Your task to perform on an android device: change keyboard looks Image 0: 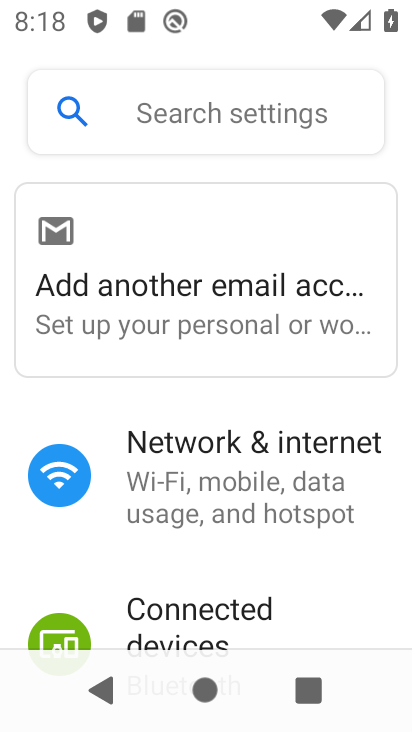
Step 0: drag from (371, 601) to (328, 142)
Your task to perform on an android device: change keyboard looks Image 1: 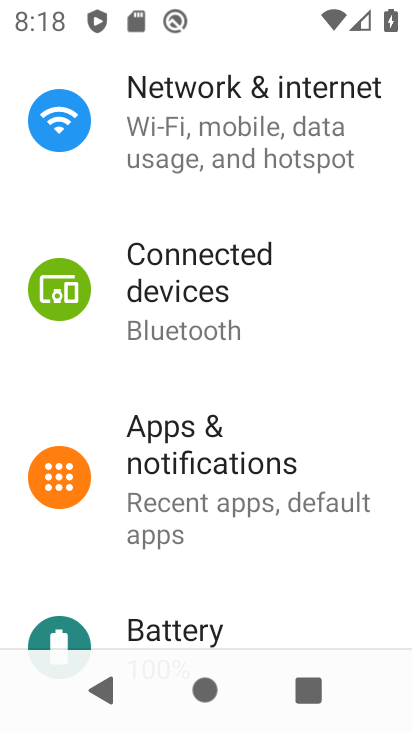
Step 1: drag from (375, 566) to (330, 158)
Your task to perform on an android device: change keyboard looks Image 2: 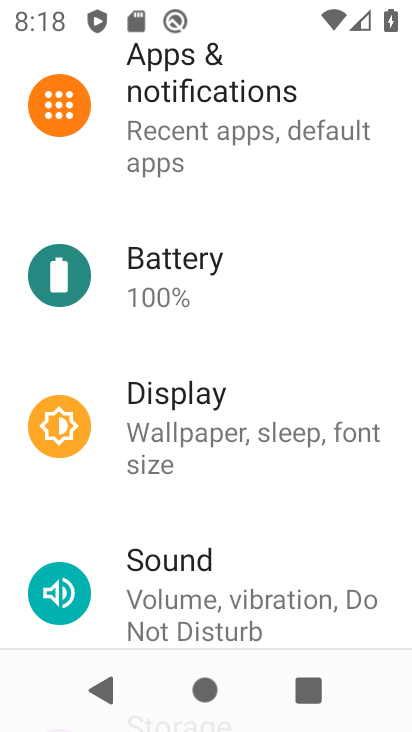
Step 2: drag from (374, 506) to (363, 109)
Your task to perform on an android device: change keyboard looks Image 3: 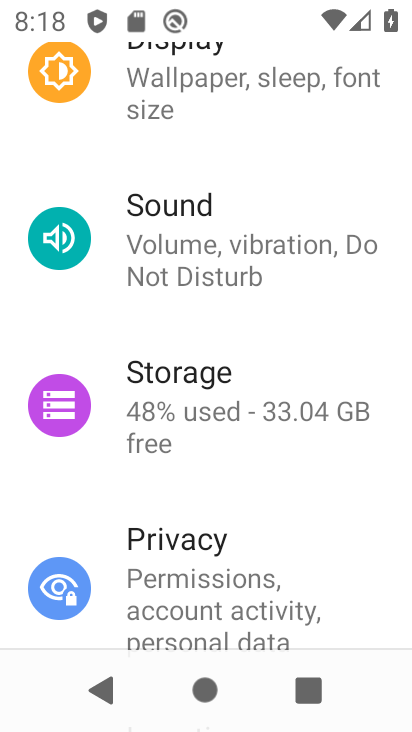
Step 3: drag from (344, 587) to (258, 160)
Your task to perform on an android device: change keyboard looks Image 4: 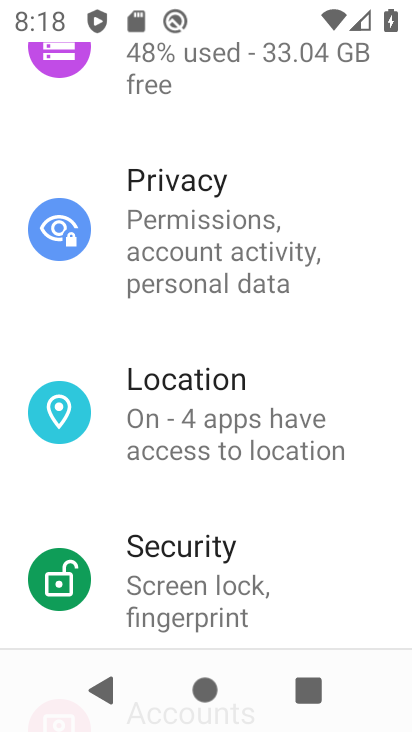
Step 4: drag from (335, 562) to (269, 117)
Your task to perform on an android device: change keyboard looks Image 5: 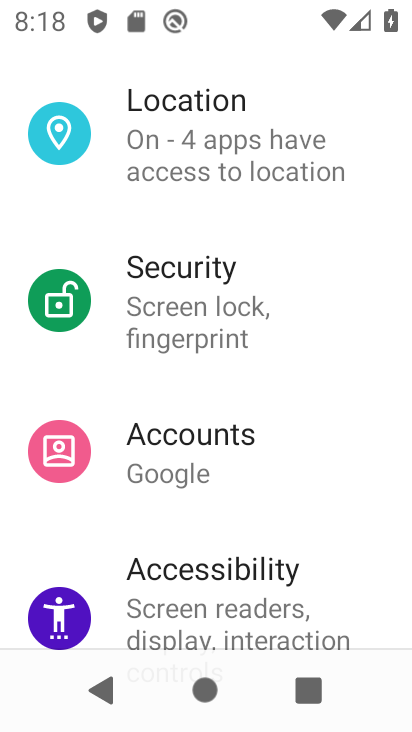
Step 5: drag from (361, 548) to (275, 108)
Your task to perform on an android device: change keyboard looks Image 6: 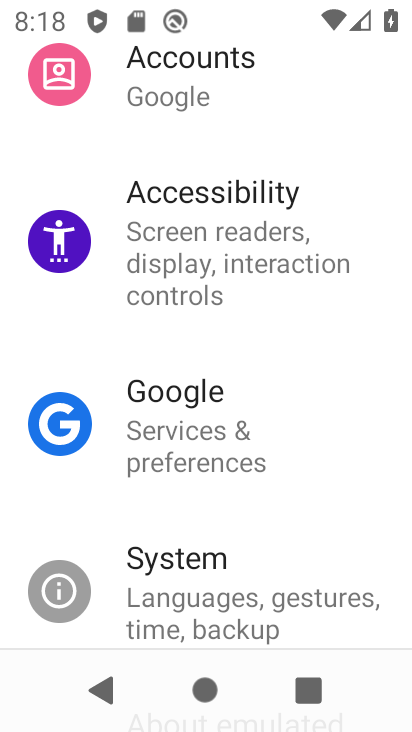
Step 6: drag from (273, 588) to (262, 248)
Your task to perform on an android device: change keyboard looks Image 7: 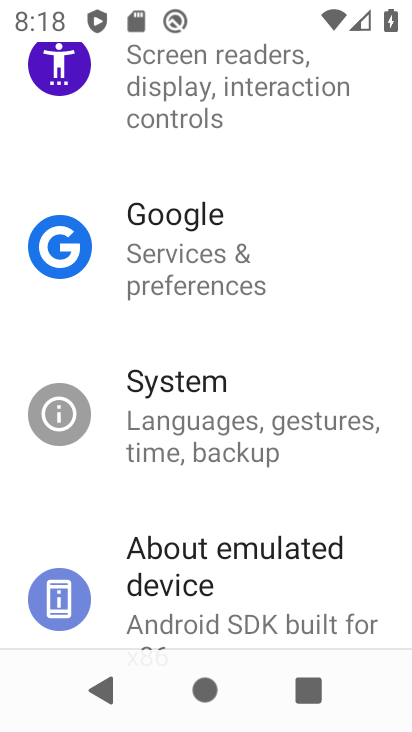
Step 7: click (258, 458)
Your task to perform on an android device: change keyboard looks Image 8: 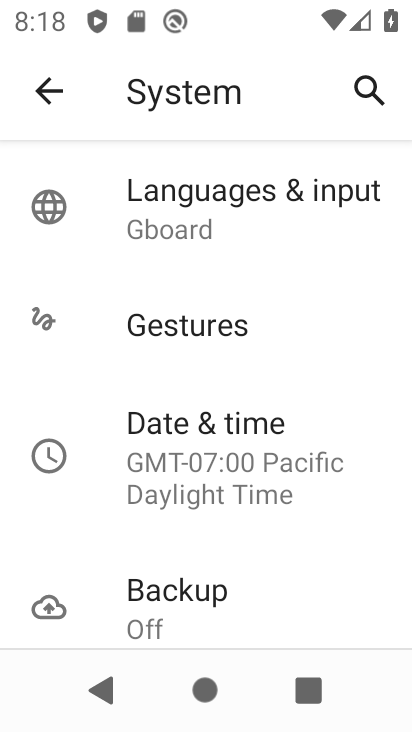
Step 8: click (245, 210)
Your task to perform on an android device: change keyboard looks Image 9: 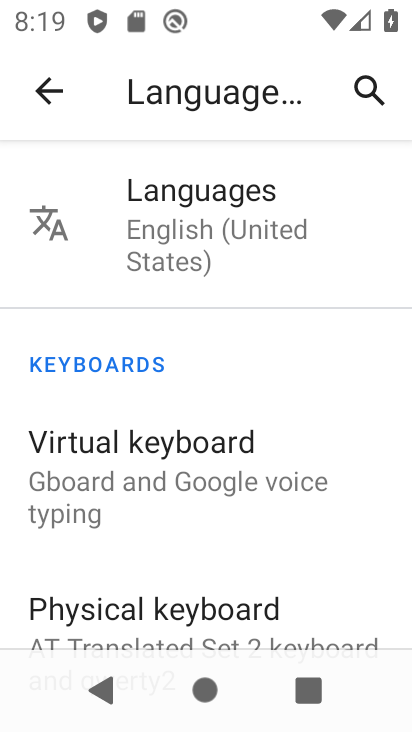
Step 9: click (198, 462)
Your task to perform on an android device: change keyboard looks Image 10: 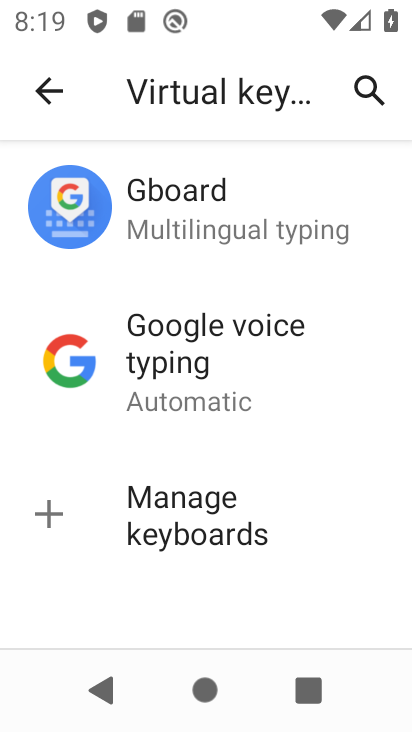
Step 10: click (243, 209)
Your task to perform on an android device: change keyboard looks Image 11: 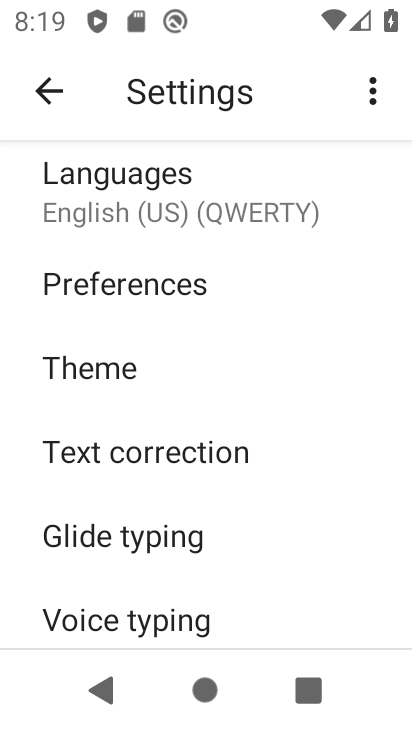
Step 11: click (141, 392)
Your task to perform on an android device: change keyboard looks Image 12: 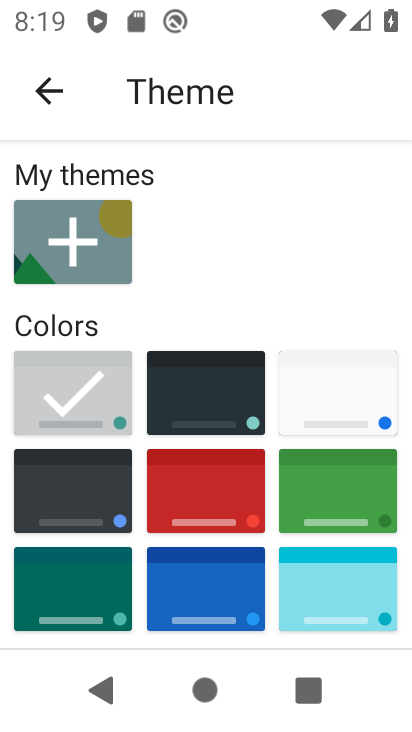
Step 12: click (163, 397)
Your task to perform on an android device: change keyboard looks Image 13: 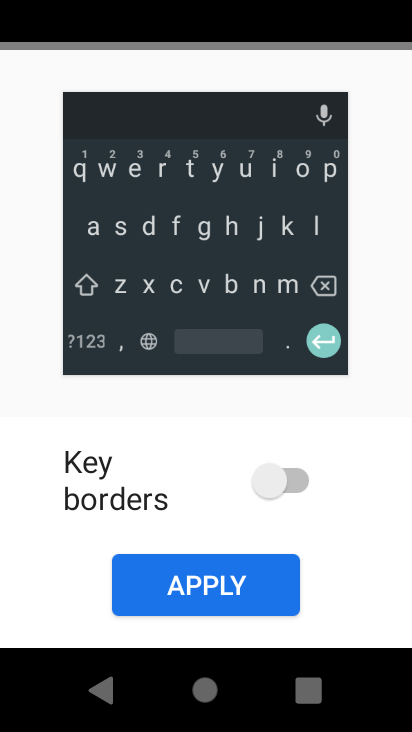
Step 13: click (219, 587)
Your task to perform on an android device: change keyboard looks Image 14: 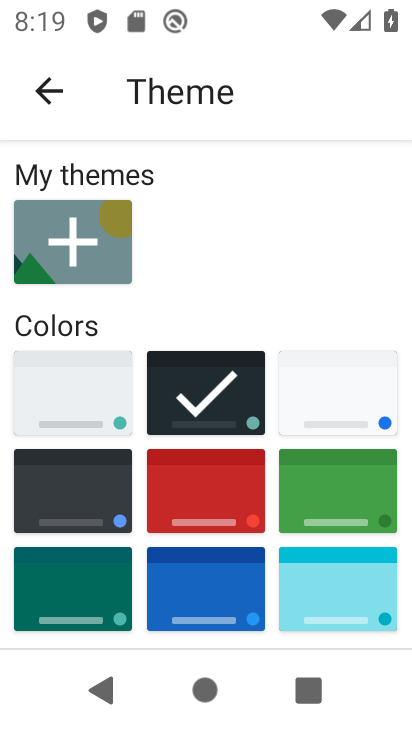
Step 14: task complete